Your task to perform on an android device: turn on wifi Image 0: 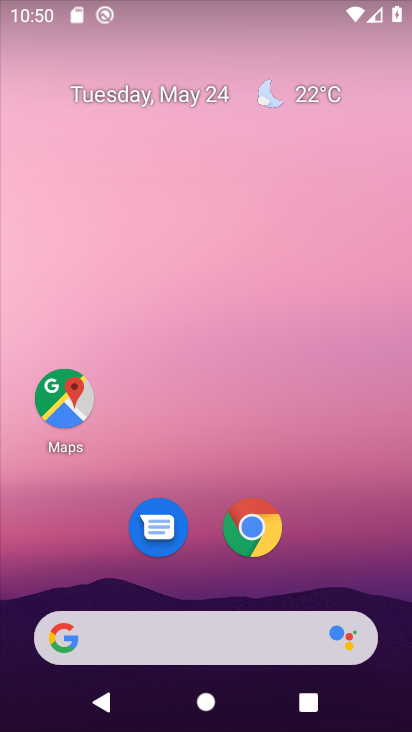
Step 0: press home button
Your task to perform on an android device: turn on wifi Image 1: 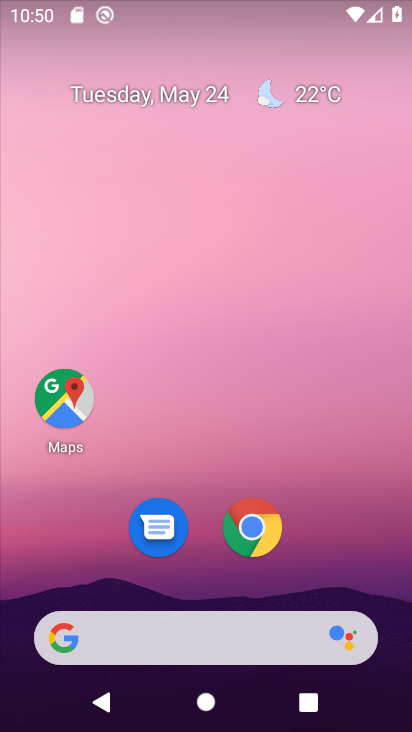
Step 1: drag from (192, 635) to (357, 97)
Your task to perform on an android device: turn on wifi Image 2: 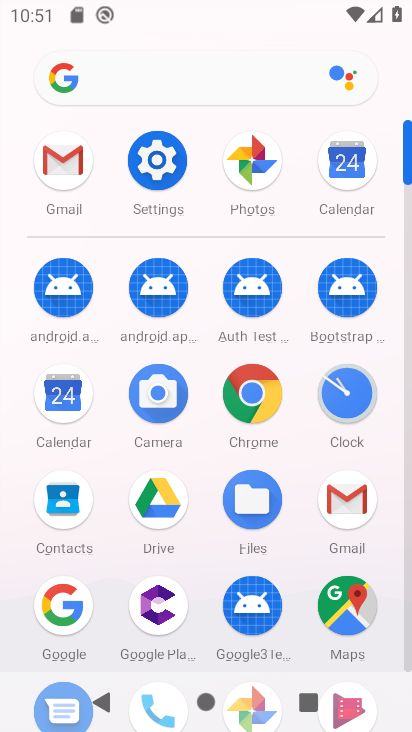
Step 2: click (156, 164)
Your task to perform on an android device: turn on wifi Image 3: 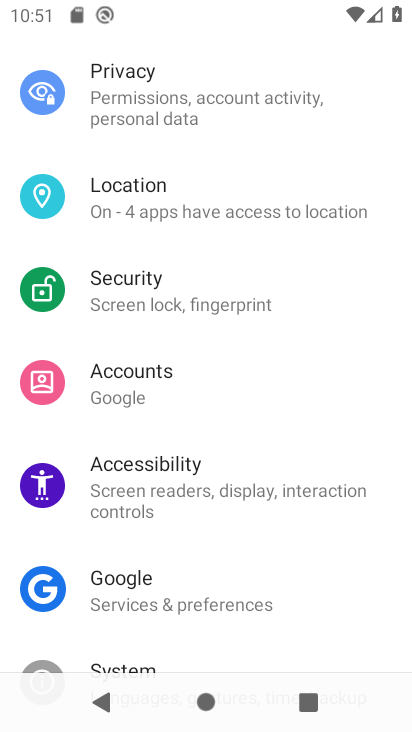
Step 3: drag from (269, 65) to (127, 557)
Your task to perform on an android device: turn on wifi Image 4: 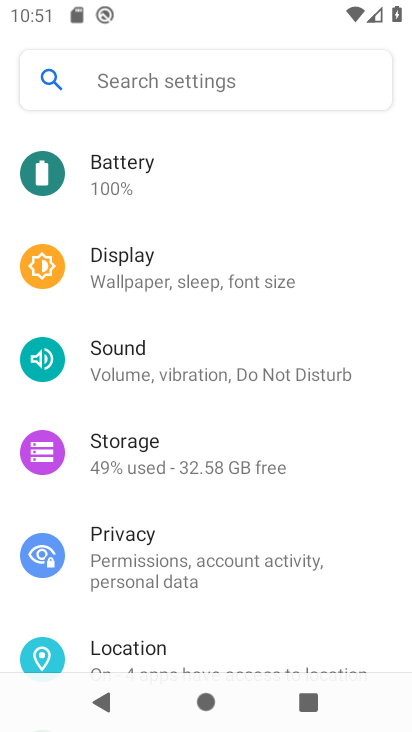
Step 4: drag from (262, 217) to (156, 560)
Your task to perform on an android device: turn on wifi Image 5: 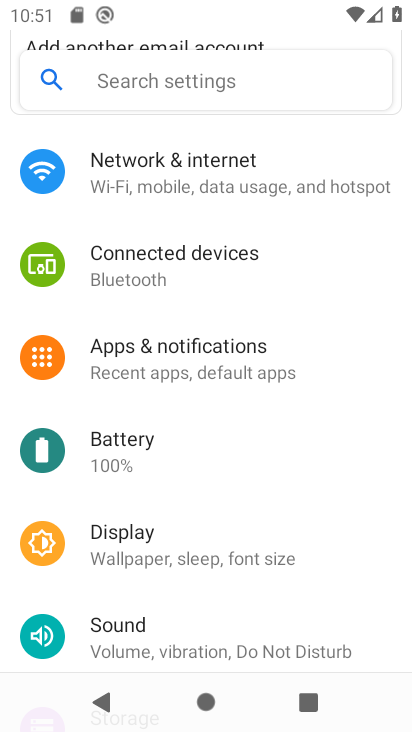
Step 5: drag from (287, 149) to (275, 505)
Your task to perform on an android device: turn on wifi Image 6: 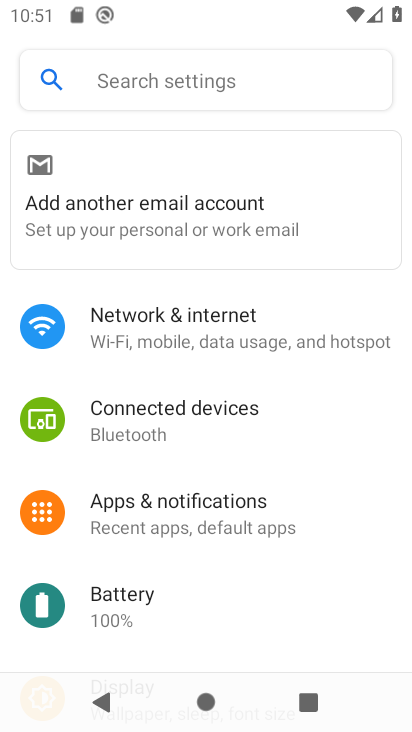
Step 6: click (209, 334)
Your task to perform on an android device: turn on wifi Image 7: 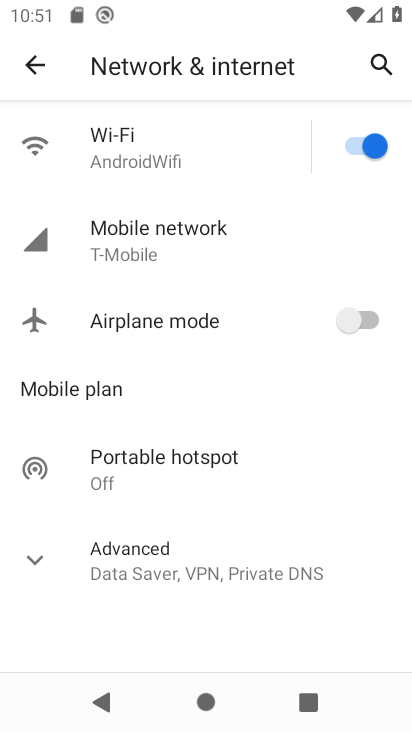
Step 7: task complete